Your task to perform on an android device: open sync settings in chrome Image 0: 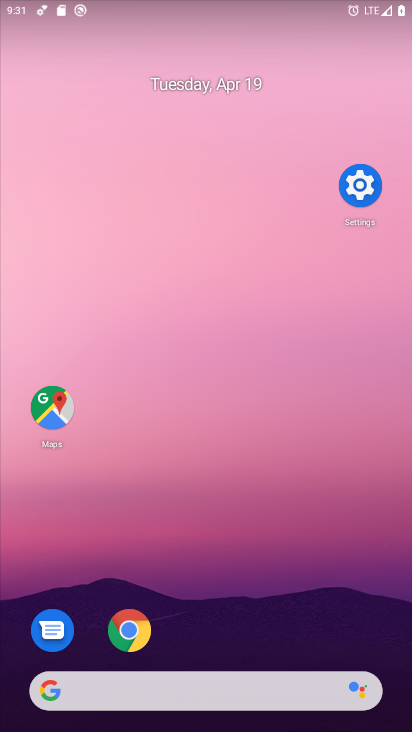
Step 0: drag from (295, 630) to (285, 194)
Your task to perform on an android device: open sync settings in chrome Image 1: 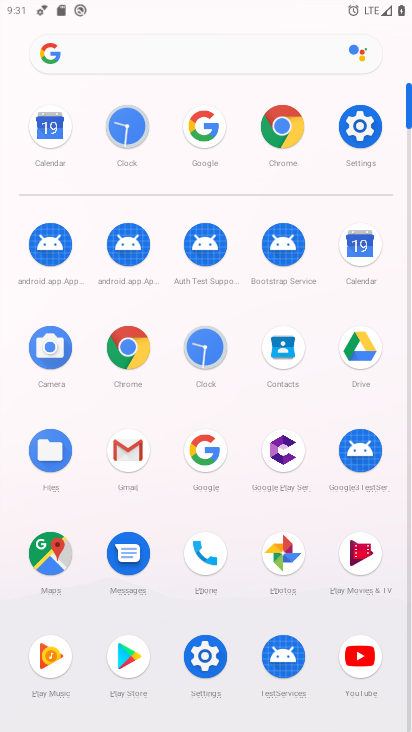
Step 1: click (270, 131)
Your task to perform on an android device: open sync settings in chrome Image 2: 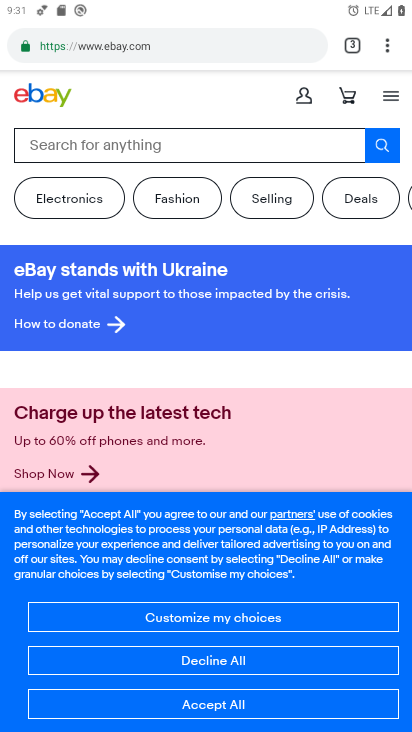
Step 2: click (387, 46)
Your task to perform on an android device: open sync settings in chrome Image 3: 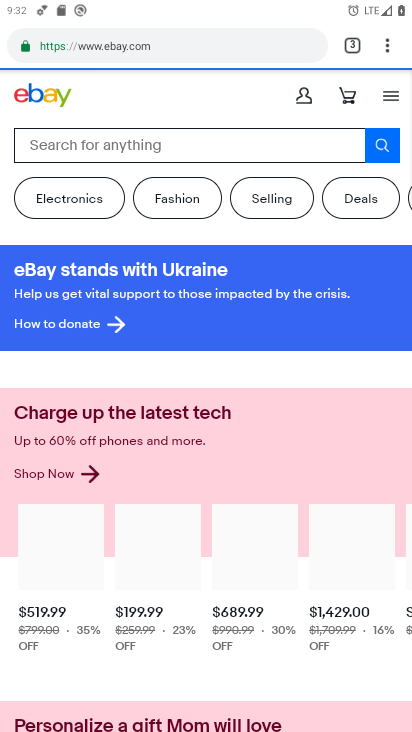
Step 3: click (391, 54)
Your task to perform on an android device: open sync settings in chrome Image 4: 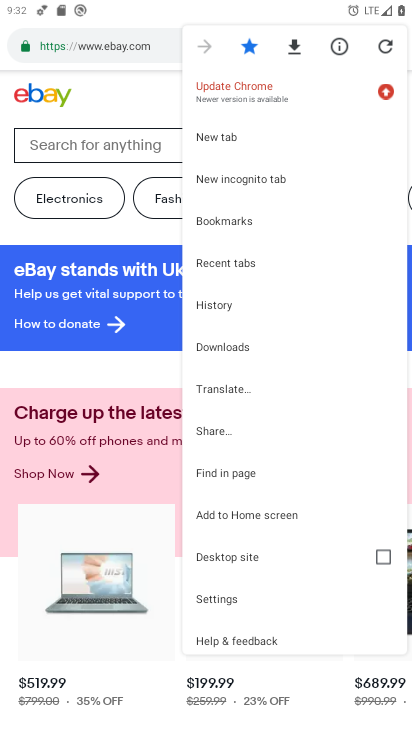
Step 4: drag from (273, 524) to (295, 141)
Your task to perform on an android device: open sync settings in chrome Image 5: 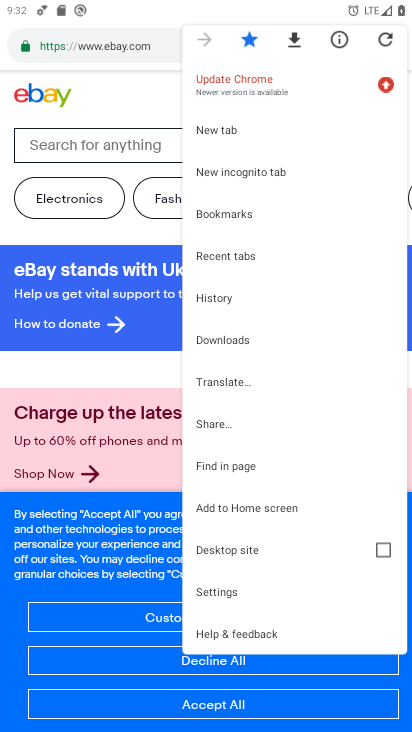
Step 5: click (245, 598)
Your task to perform on an android device: open sync settings in chrome Image 6: 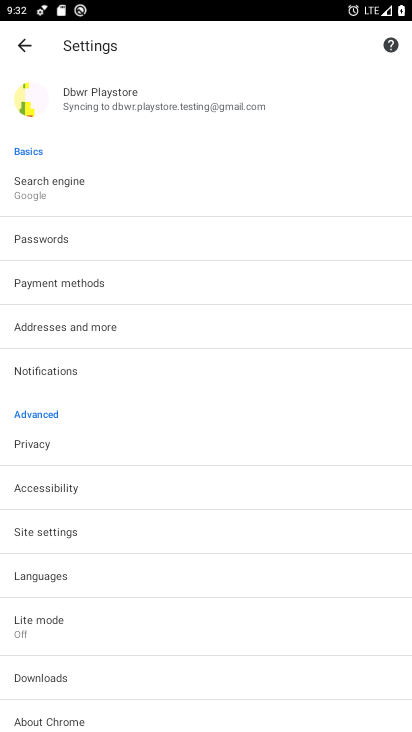
Step 6: click (175, 119)
Your task to perform on an android device: open sync settings in chrome Image 7: 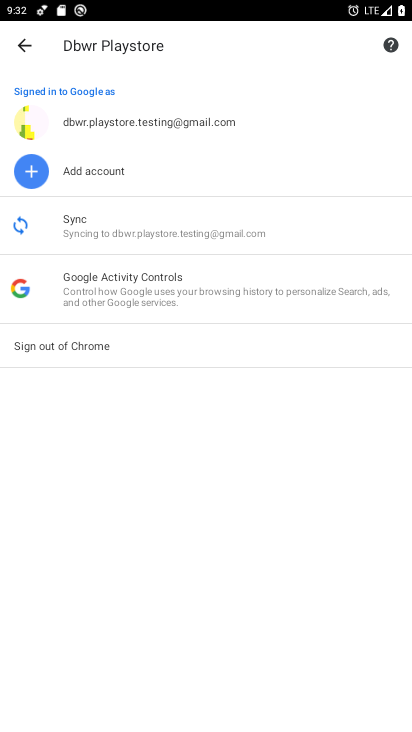
Step 7: click (185, 230)
Your task to perform on an android device: open sync settings in chrome Image 8: 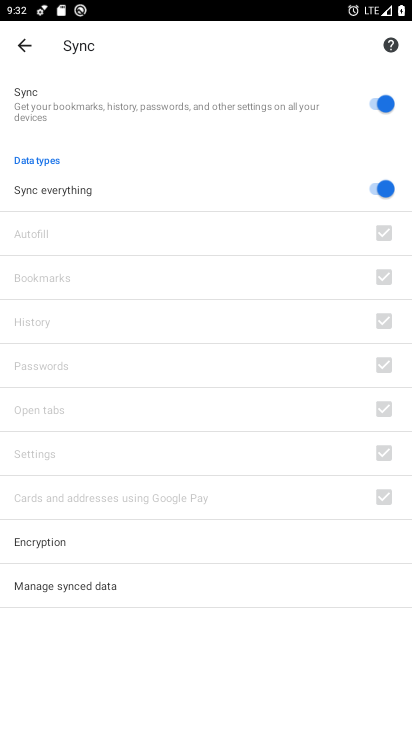
Step 8: task complete